Your task to perform on an android device: Open Youtube and go to "Your channel" Image 0: 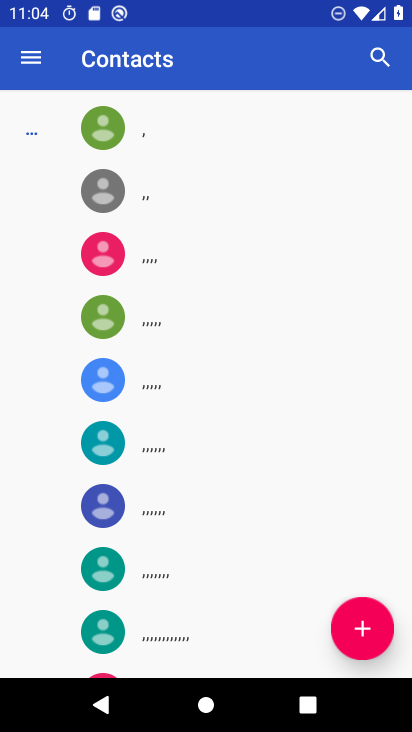
Step 0: press home button
Your task to perform on an android device: Open Youtube and go to "Your channel" Image 1: 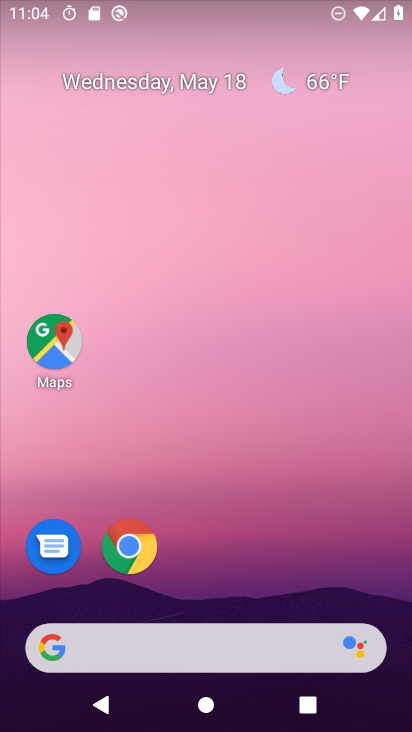
Step 1: drag from (208, 618) to (249, 77)
Your task to perform on an android device: Open Youtube and go to "Your channel" Image 2: 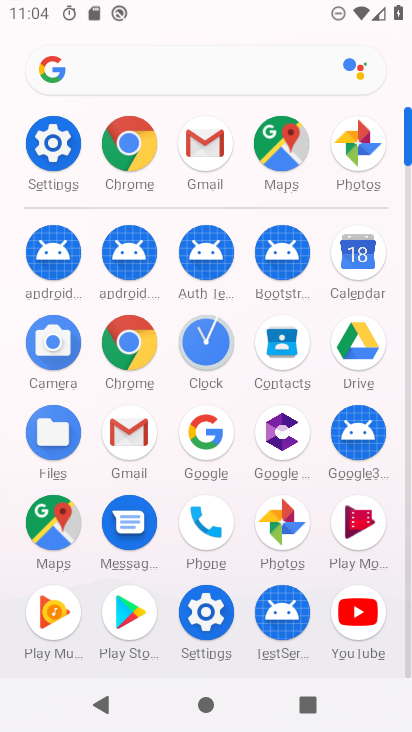
Step 2: click (351, 605)
Your task to perform on an android device: Open Youtube and go to "Your channel" Image 3: 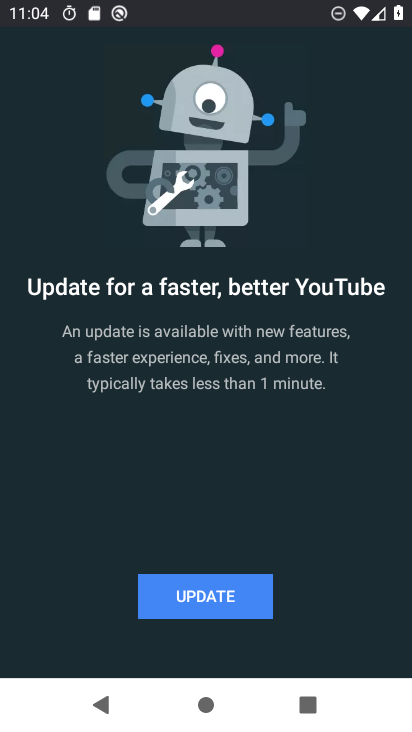
Step 3: click (220, 599)
Your task to perform on an android device: Open Youtube and go to "Your channel" Image 4: 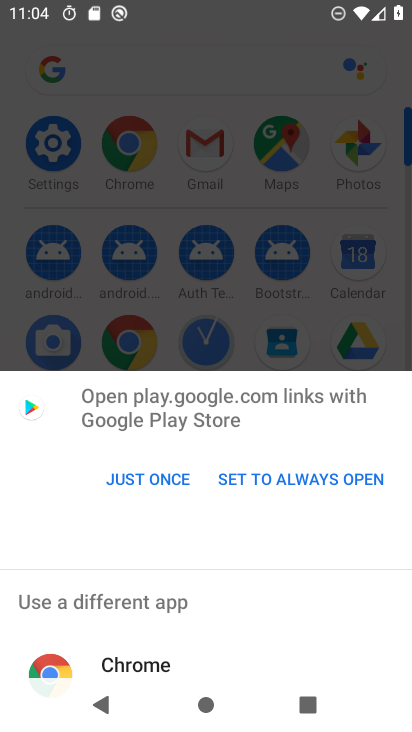
Step 4: click (180, 472)
Your task to perform on an android device: Open Youtube and go to "Your channel" Image 5: 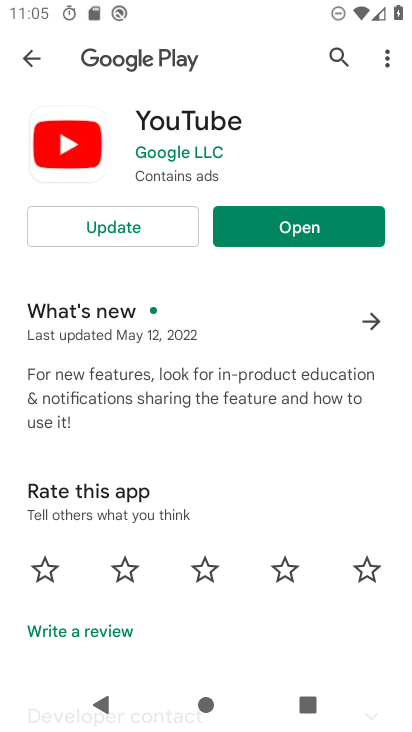
Step 5: click (133, 227)
Your task to perform on an android device: Open Youtube and go to "Your channel" Image 6: 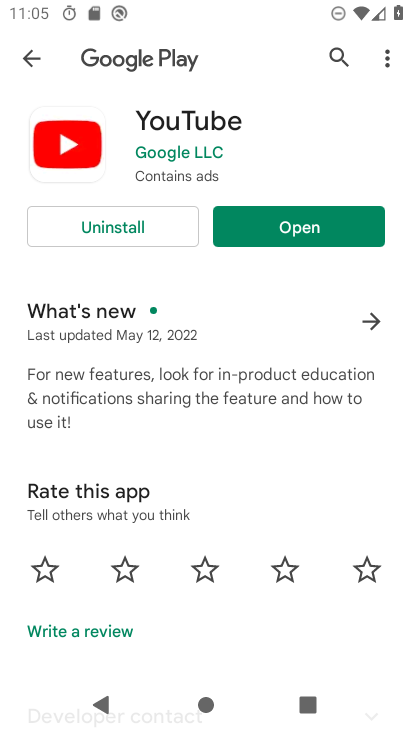
Step 6: click (312, 216)
Your task to perform on an android device: Open Youtube and go to "Your channel" Image 7: 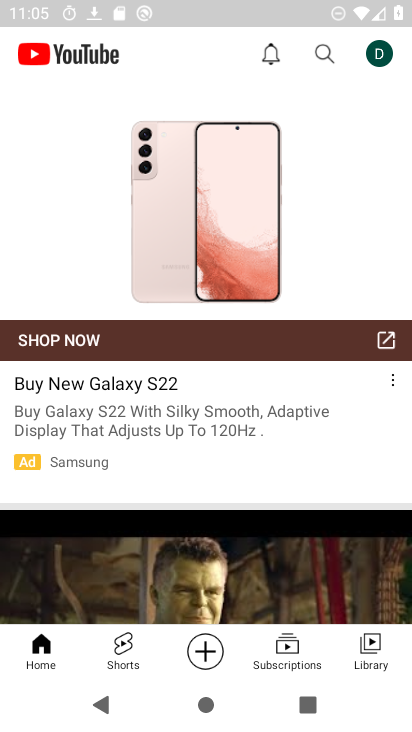
Step 7: click (330, 49)
Your task to perform on an android device: Open Youtube and go to "Your channel" Image 8: 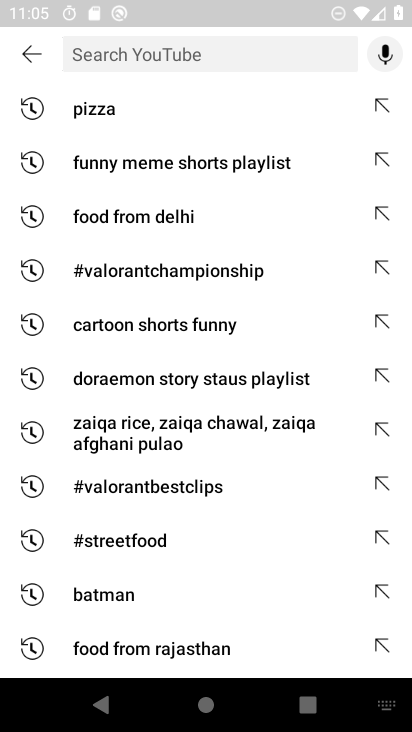
Step 8: type "your channel"
Your task to perform on an android device: Open Youtube and go to "Your channel" Image 9: 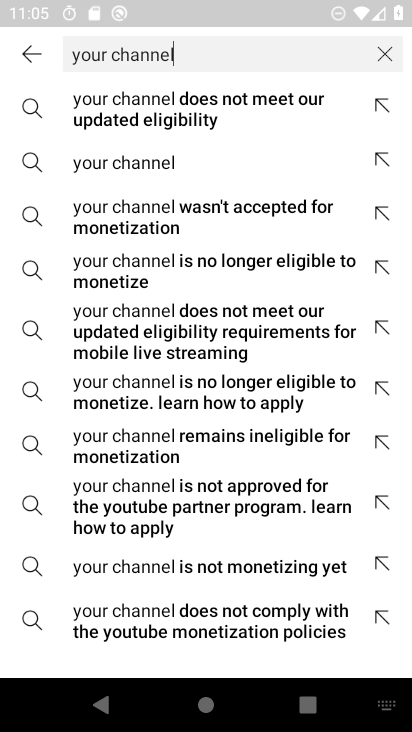
Step 9: click (145, 167)
Your task to perform on an android device: Open Youtube and go to "Your channel" Image 10: 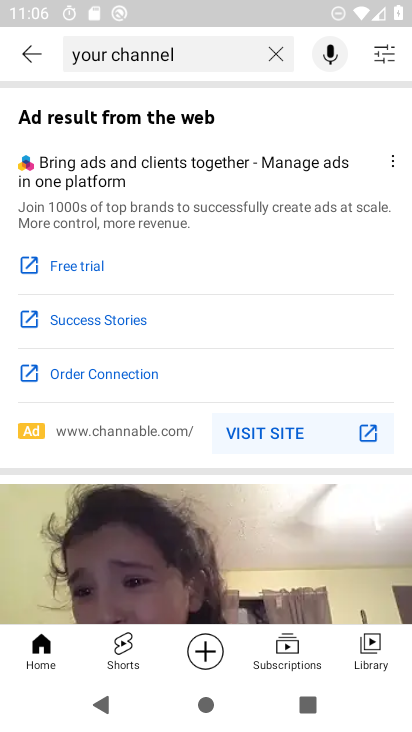
Step 10: task complete